Your task to perform on an android device: find snoozed emails in the gmail app Image 0: 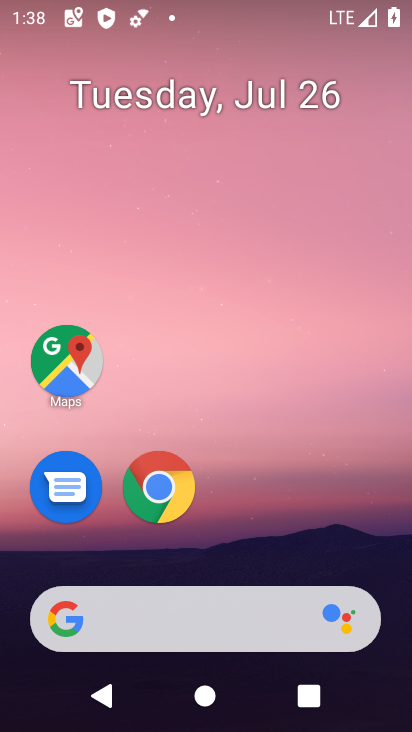
Step 0: drag from (179, 623) to (183, 115)
Your task to perform on an android device: find snoozed emails in the gmail app Image 1: 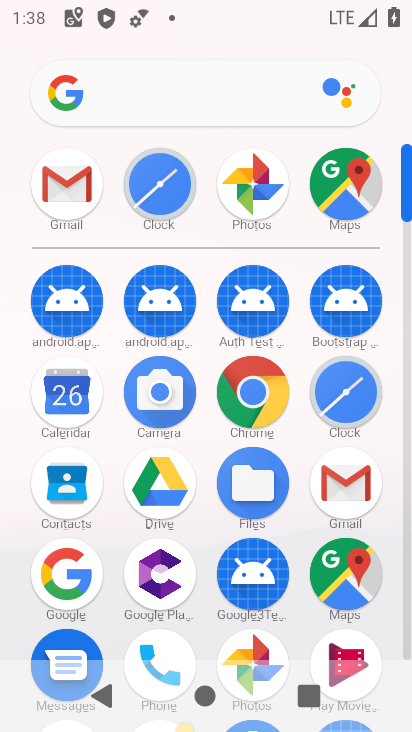
Step 1: click (332, 482)
Your task to perform on an android device: find snoozed emails in the gmail app Image 2: 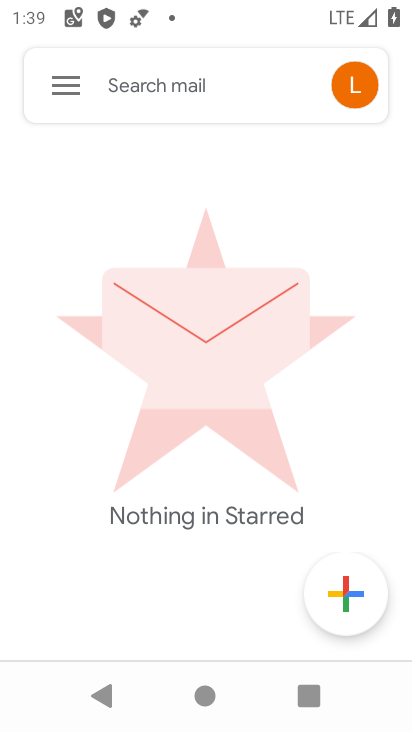
Step 2: click (68, 86)
Your task to perform on an android device: find snoozed emails in the gmail app Image 3: 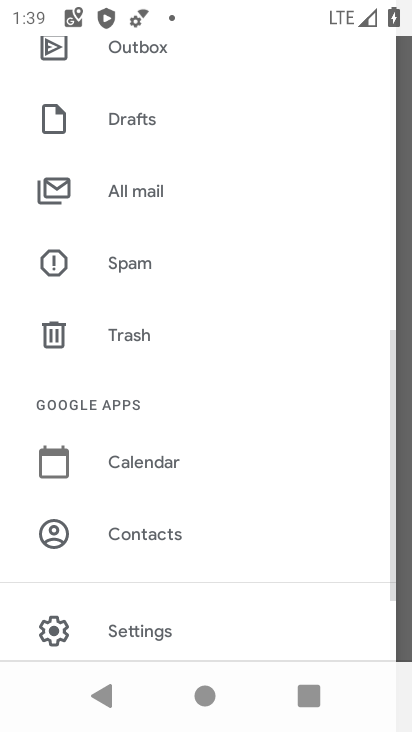
Step 3: drag from (135, 252) to (123, 665)
Your task to perform on an android device: find snoozed emails in the gmail app Image 4: 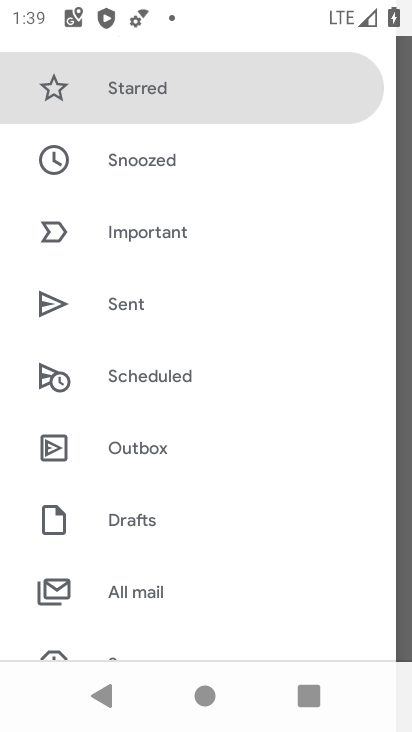
Step 4: drag from (166, 331) to (128, 610)
Your task to perform on an android device: find snoozed emails in the gmail app Image 5: 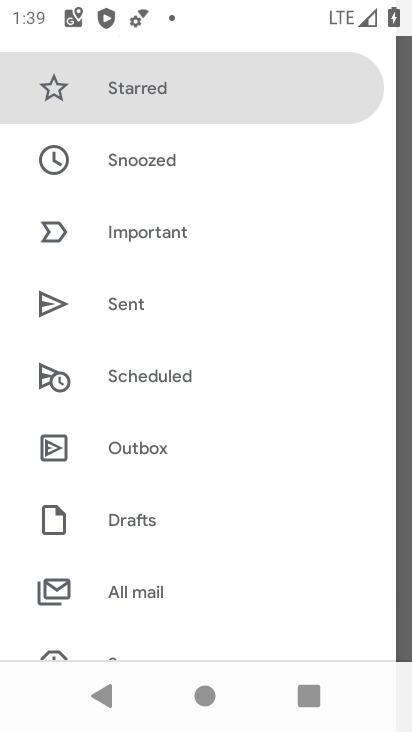
Step 5: click (160, 164)
Your task to perform on an android device: find snoozed emails in the gmail app Image 6: 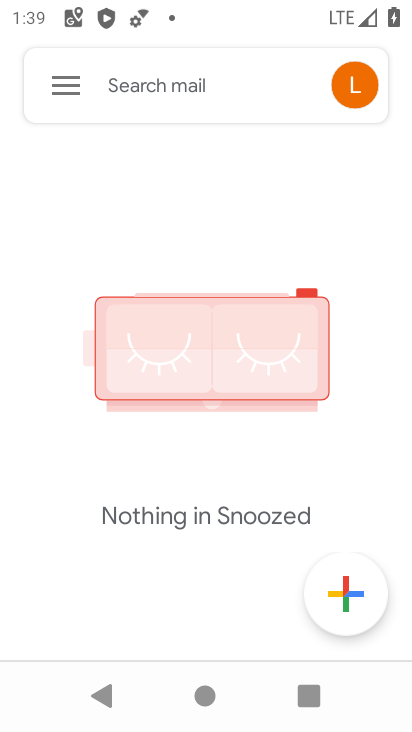
Step 6: task complete